Your task to perform on an android device: Go to Maps Image 0: 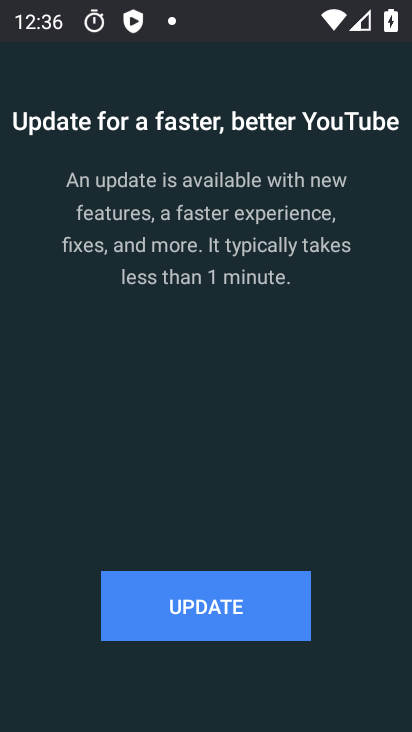
Step 0: drag from (345, 550) to (268, 25)
Your task to perform on an android device: Go to Maps Image 1: 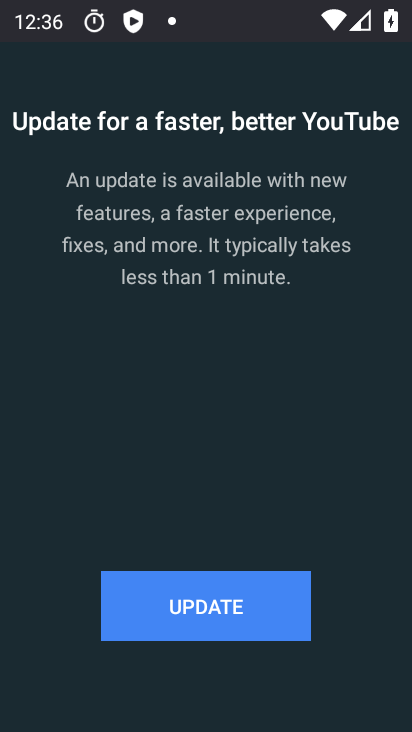
Step 1: press back button
Your task to perform on an android device: Go to Maps Image 2: 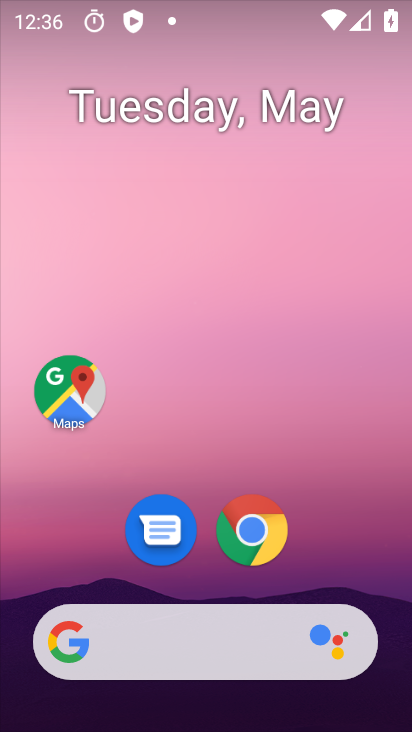
Step 2: drag from (311, 395) to (269, 70)
Your task to perform on an android device: Go to Maps Image 3: 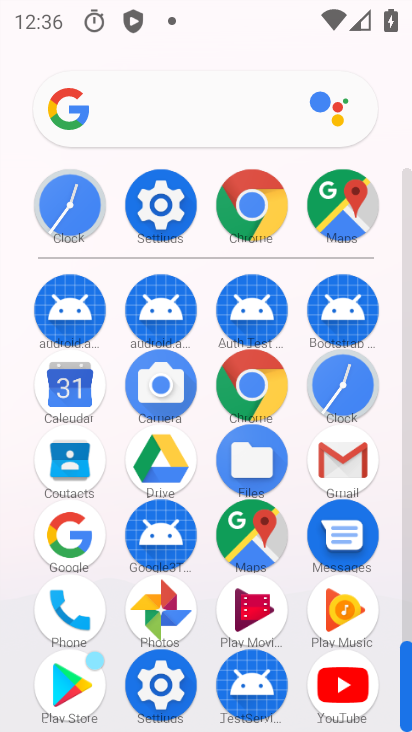
Step 3: click (338, 203)
Your task to perform on an android device: Go to Maps Image 4: 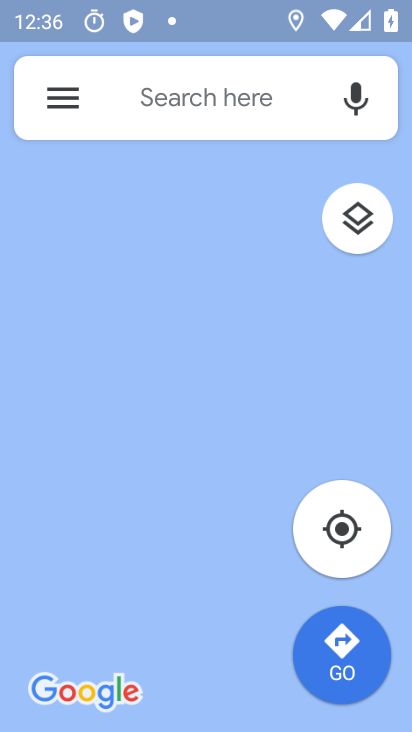
Step 4: task complete